Your task to perform on an android device: delete location history Image 0: 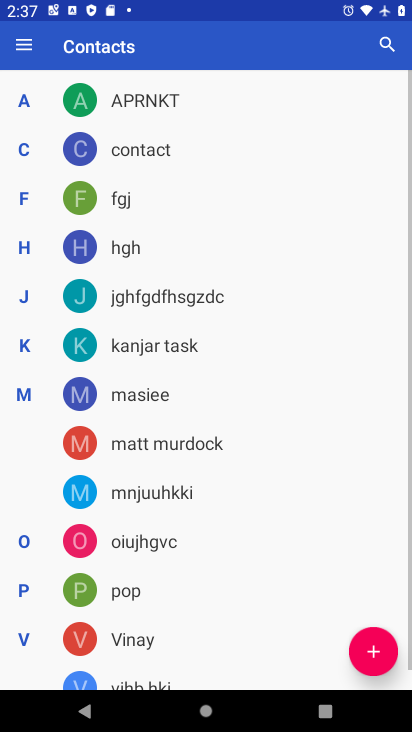
Step 0: press home button
Your task to perform on an android device: delete location history Image 1: 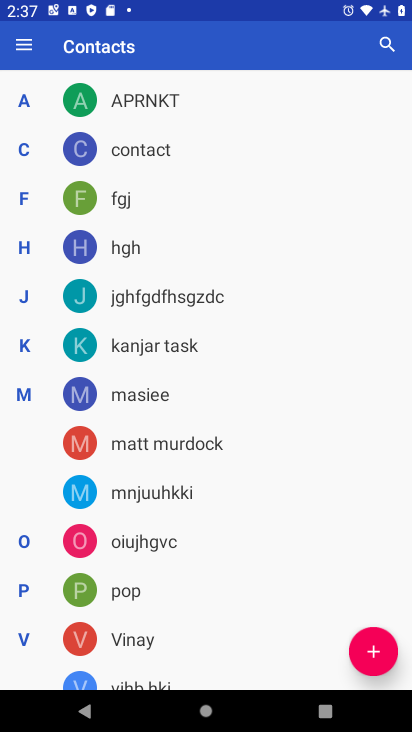
Step 1: press home button
Your task to perform on an android device: delete location history Image 2: 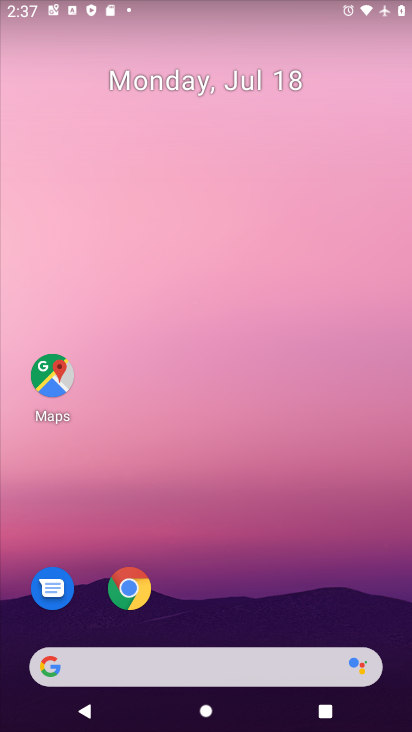
Step 2: drag from (199, 585) to (299, 188)
Your task to perform on an android device: delete location history Image 3: 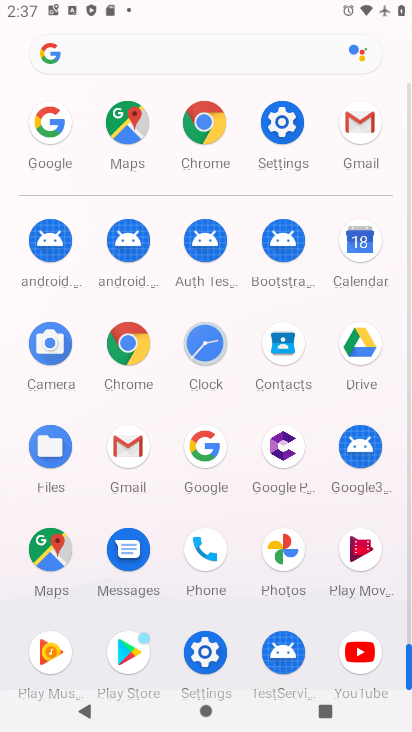
Step 3: click (286, 138)
Your task to perform on an android device: delete location history Image 4: 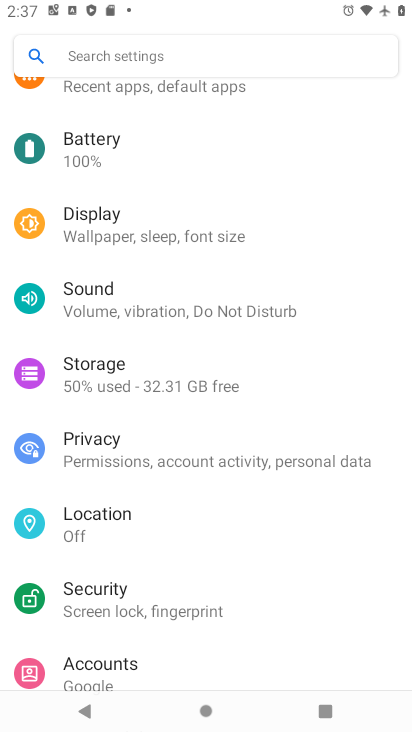
Step 4: click (136, 532)
Your task to perform on an android device: delete location history Image 5: 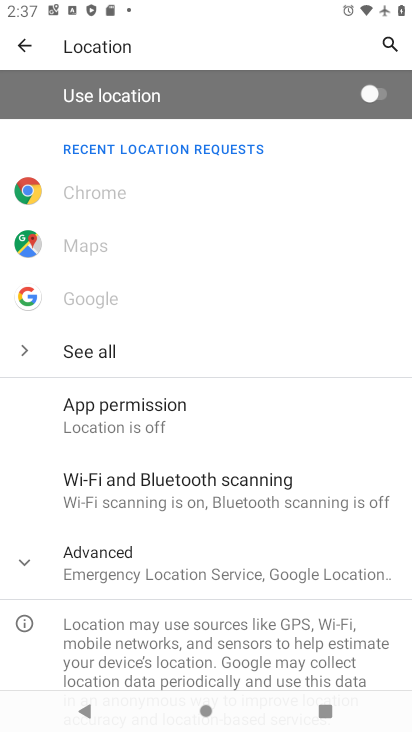
Step 5: click (187, 571)
Your task to perform on an android device: delete location history Image 6: 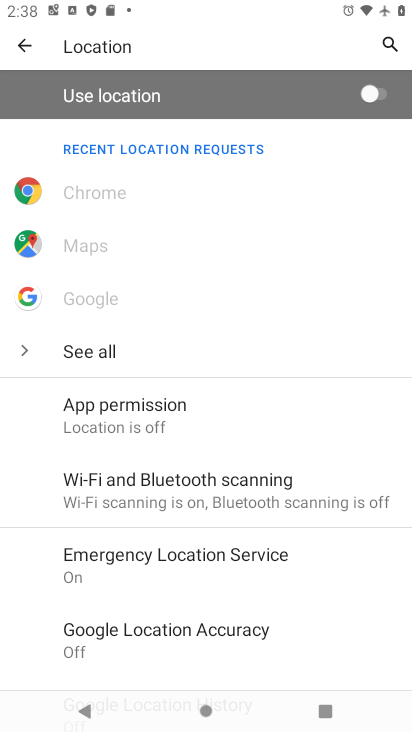
Step 6: drag from (218, 625) to (298, 387)
Your task to perform on an android device: delete location history Image 7: 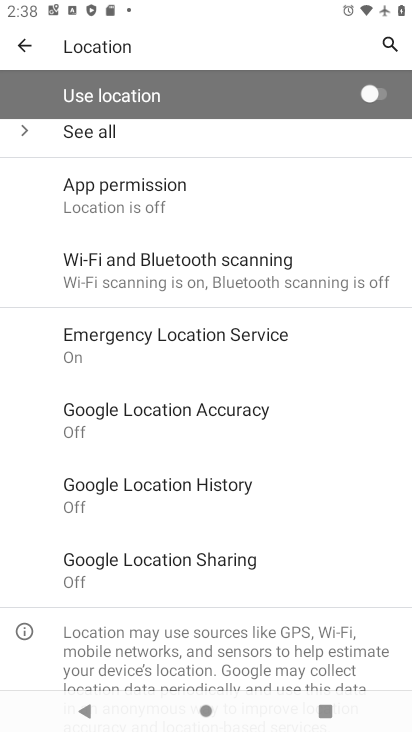
Step 7: click (204, 488)
Your task to perform on an android device: delete location history Image 8: 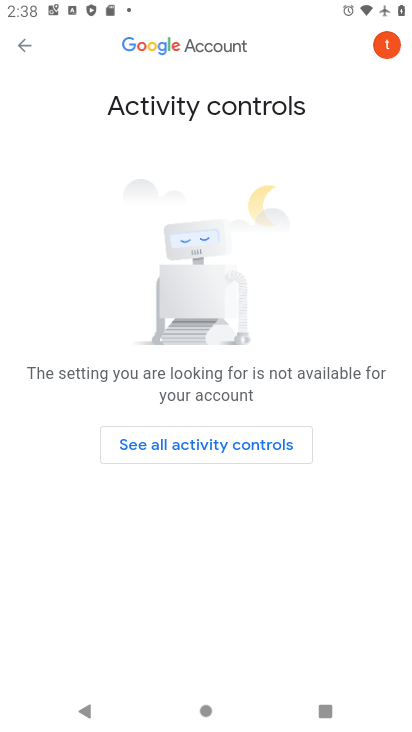
Step 8: task complete